Your task to perform on an android device: turn on the 12-hour format for clock Image 0: 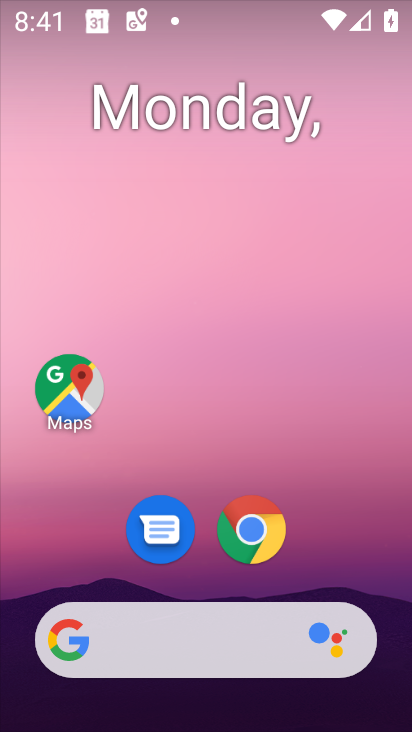
Step 0: drag from (20, 690) to (247, 240)
Your task to perform on an android device: turn on the 12-hour format for clock Image 1: 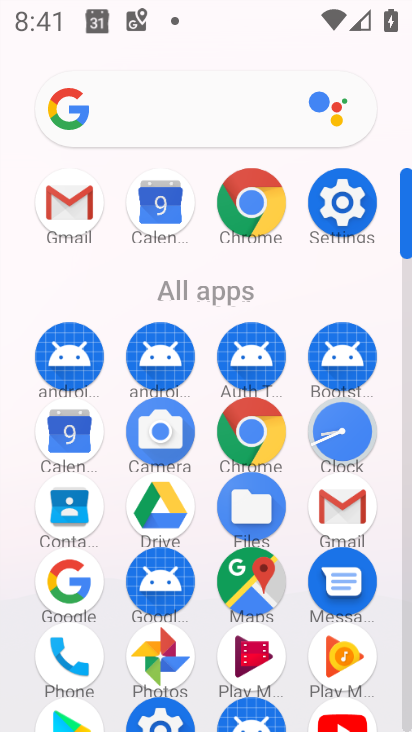
Step 1: click (335, 445)
Your task to perform on an android device: turn on the 12-hour format for clock Image 2: 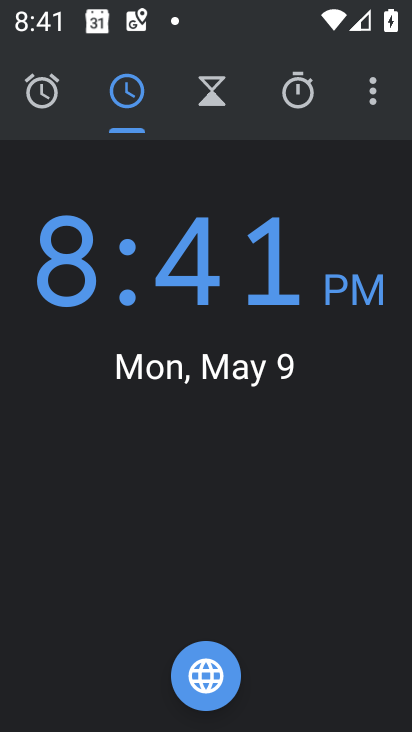
Step 2: click (378, 96)
Your task to perform on an android device: turn on the 12-hour format for clock Image 3: 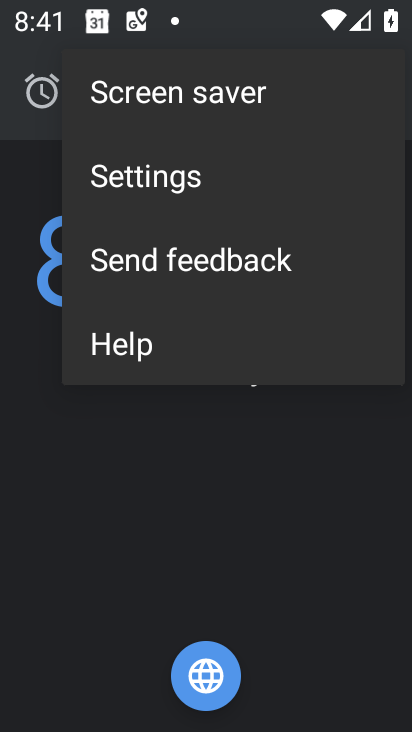
Step 3: click (163, 190)
Your task to perform on an android device: turn on the 12-hour format for clock Image 4: 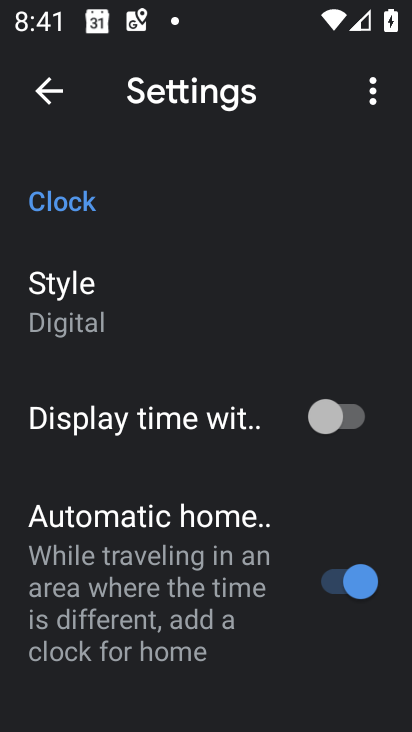
Step 4: drag from (103, 565) to (238, 172)
Your task to perform on an android device: turn on the 12-hour format for clock Image 5: 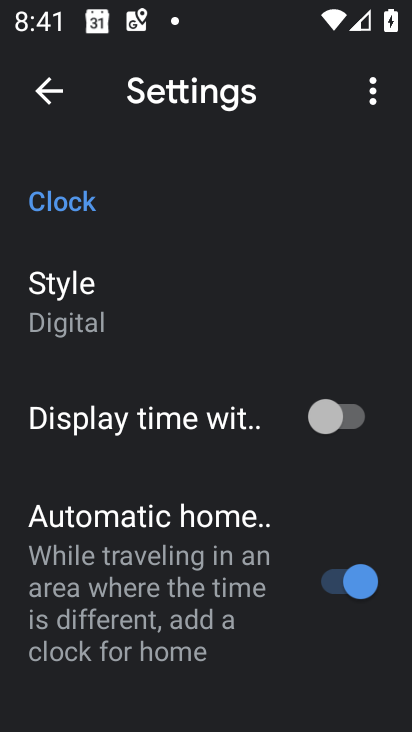
Step 5: drag from (36, 714) to (294, 222)
Your task to perform on an android device: turn on the 12-hour format for clock Image 6: 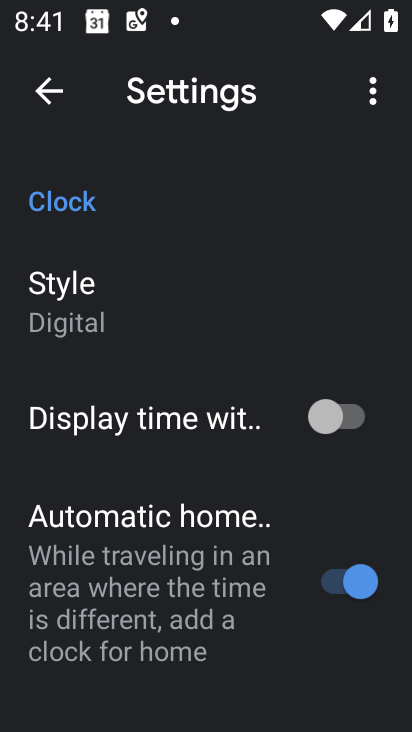
Step 6: drag from (131, 611) to (287, 194)
Your task to perform on an android device: turn on the 12-hour format for clock Image 7: 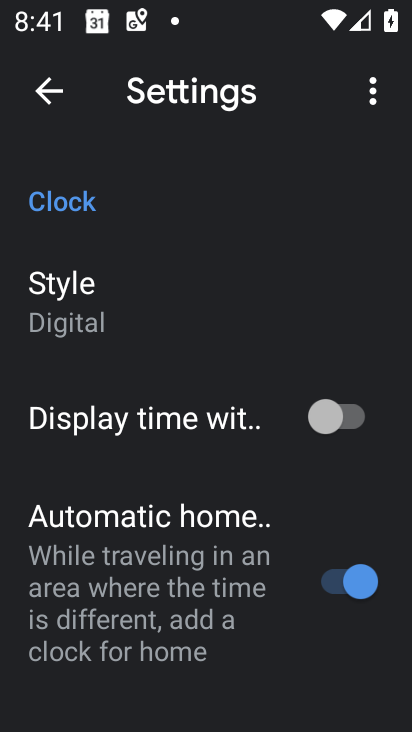
Step 7: drag from (64, 605) to (211, 242)
Your task to perform on an android device: turn on the 12-hour format for clock Image 8: 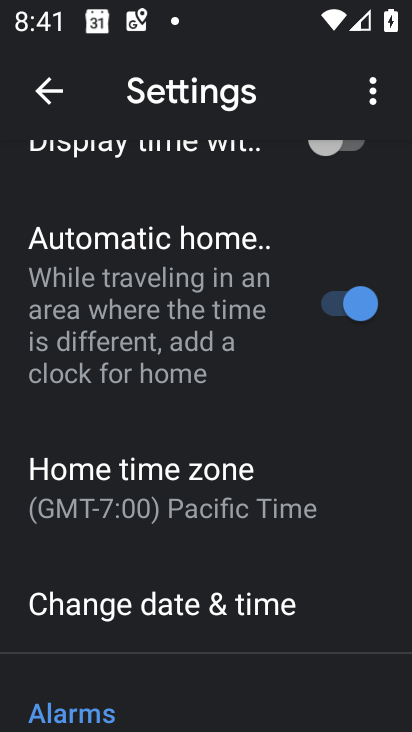
Step 8: click (81, 611)
Your task to perform on an android device: turn on the 12-hour format for clock Image 9: 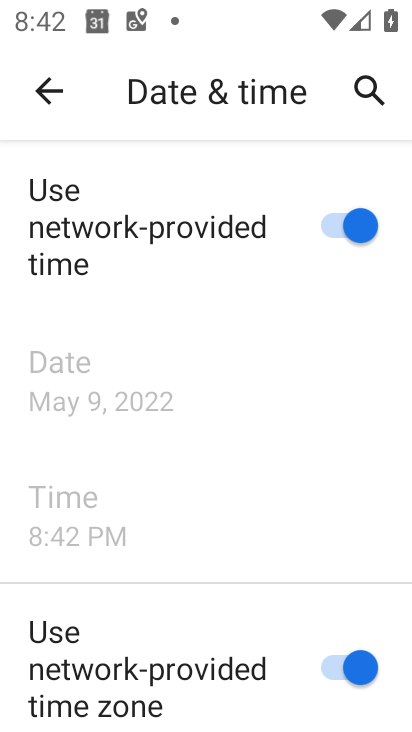
Step 9: task complete